Your task to perform on an android device: Clear the shopping cart on costco. Search for amazon basics triple a on costco, select the first entry, add it to the cart, then select checkout. Image 0: 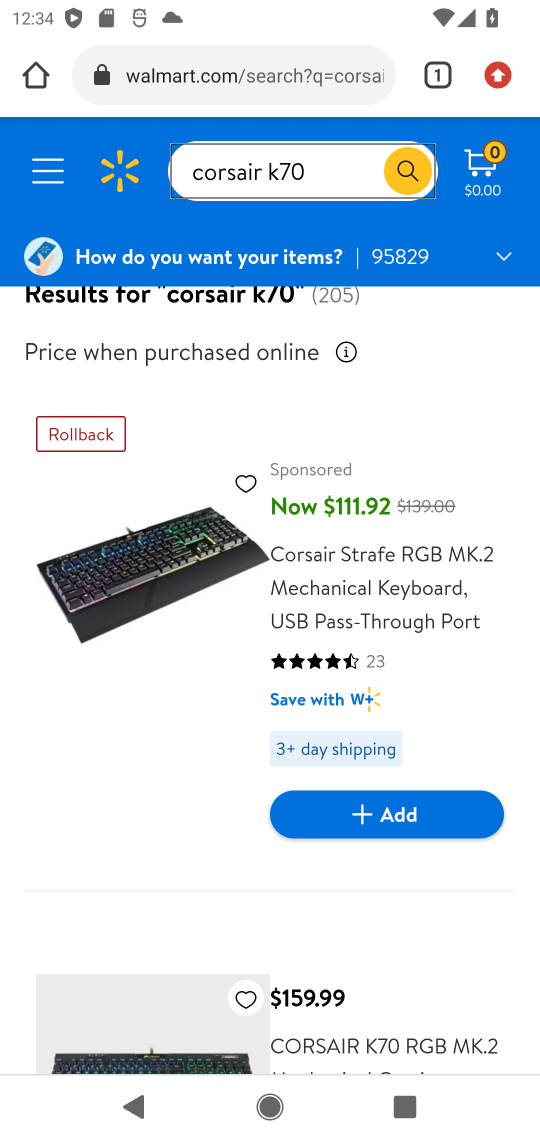
Step 0: click (232, 82)
Your task to perform on an android device: Clear the shopping cart on costco. Search for amazon basics triple a on costco, select the first entry, add it to the cart, then select checkout. Image 1: 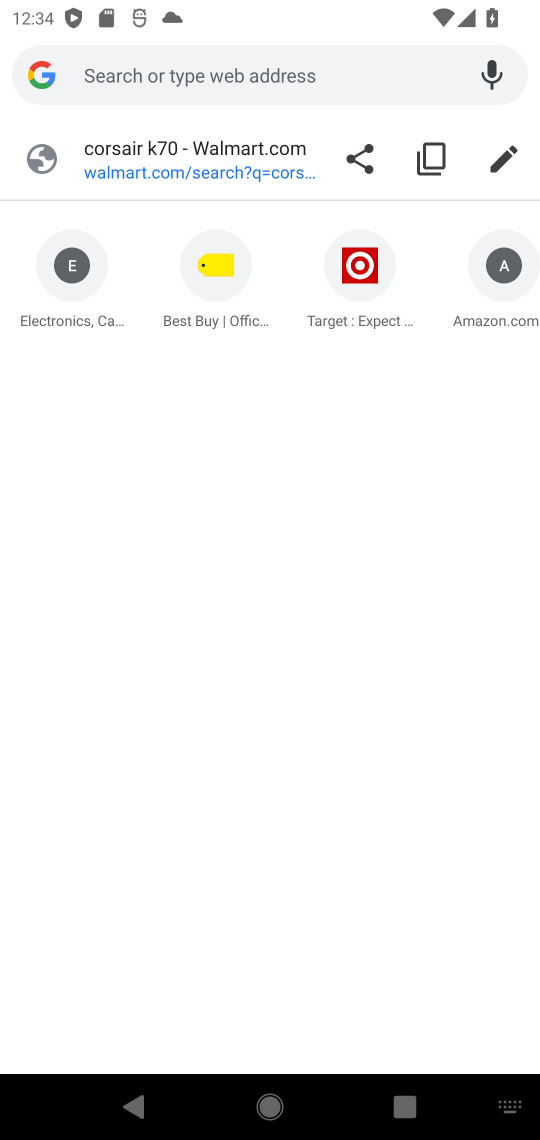
Step 1: type "costco.com"
Your task to perform on an android device: Clear the shopping cart on costco. Search for amazon basics triple a on costco, select the first entry, add it to the cart, then select checkout. Image 2: 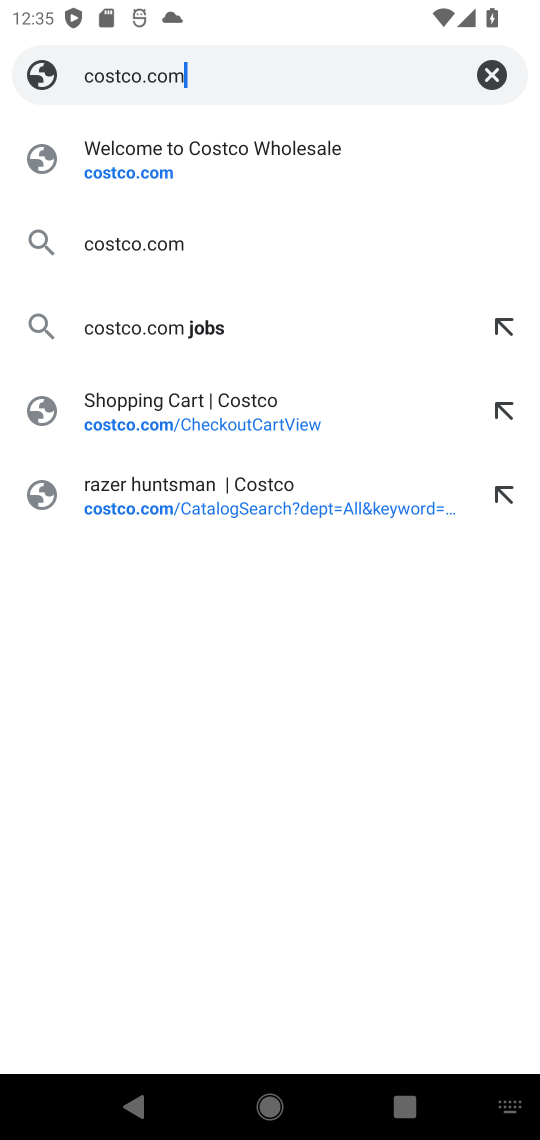
Step 2: click (123, 180)
Your task to perform on an android device: Clear the shopping cart on costco. Search for amazon basics triple a on costco, select the first entry, add it to the cart, then select checkout. Image 3: 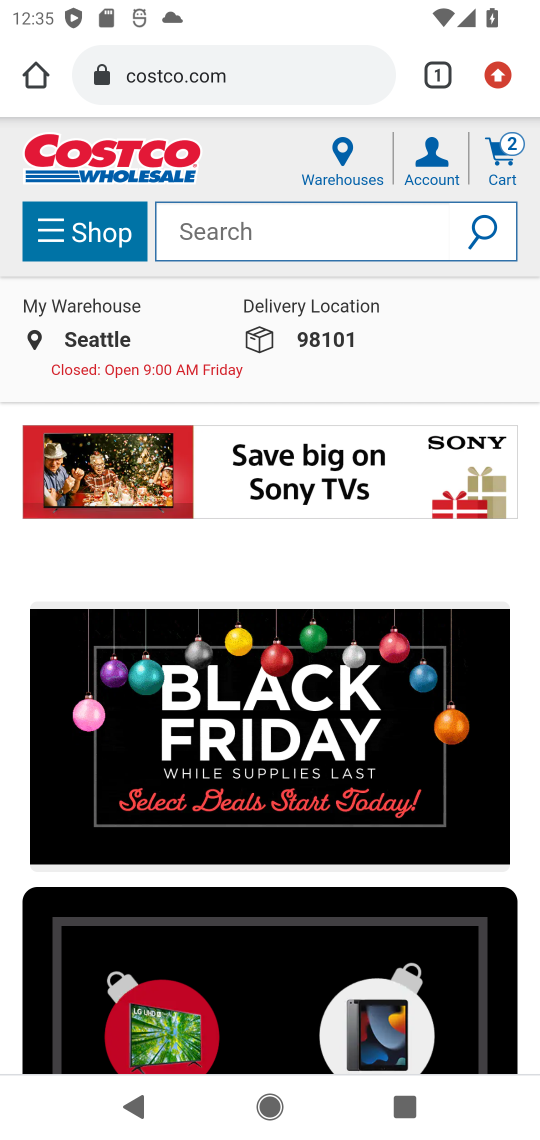
Step 3: click (502, 166)
Your task to perform on an android device: Clear the shopping cart on costco. Search for amazon basics triple a on costco, select the first entry, add it to the cart, then select checkout. Image 4: 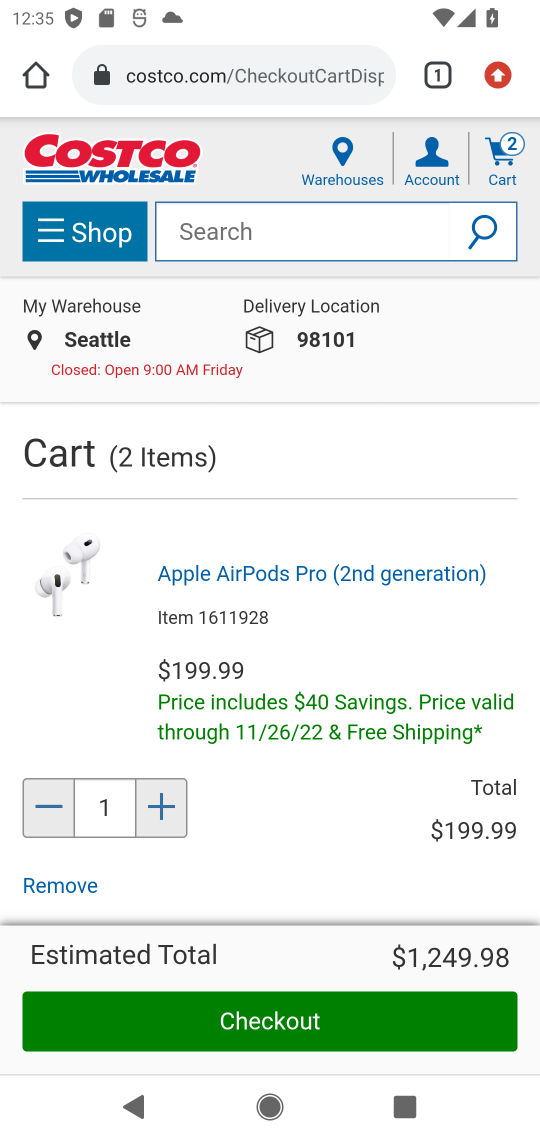
Step 4: drag from (275, 760) to (272, 327)
Your task to perform on an android device: Clear the shopping cart on costco. Search for amazon basics triple a on costco, select the first entry, add it to the cart, then select checkout. Image 5: 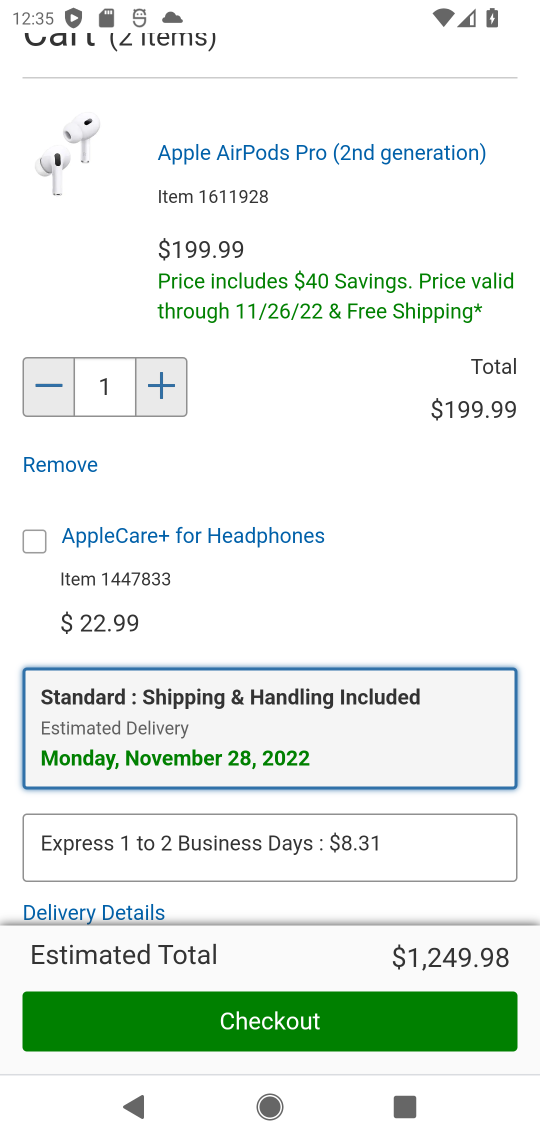
Step 5: drag from (314, 744) to (336, 470)
Your task to perform on an android device: Clear the shopping cart on costco. Search for amazon basics triple a on costco, select the first entry, add it to the cart, then select checkout. Image 6: 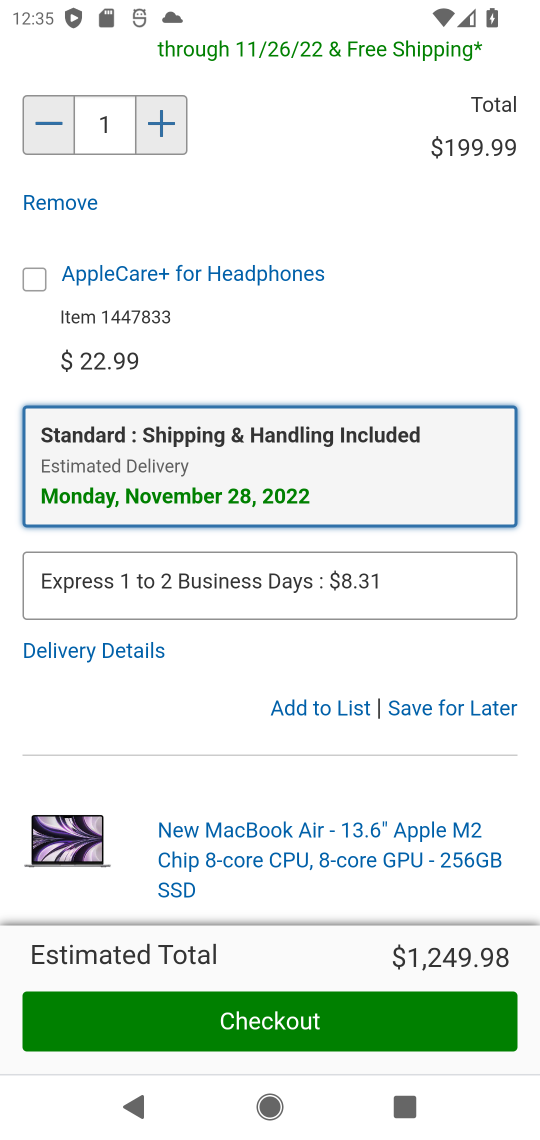
Step 6: click (413, 715)
Your task to perform on an android device: Clear the shopping cart on costco. Search for amazon basics triple a on costco, select the first entry, add it to the cart, then select checkout. Image 7: 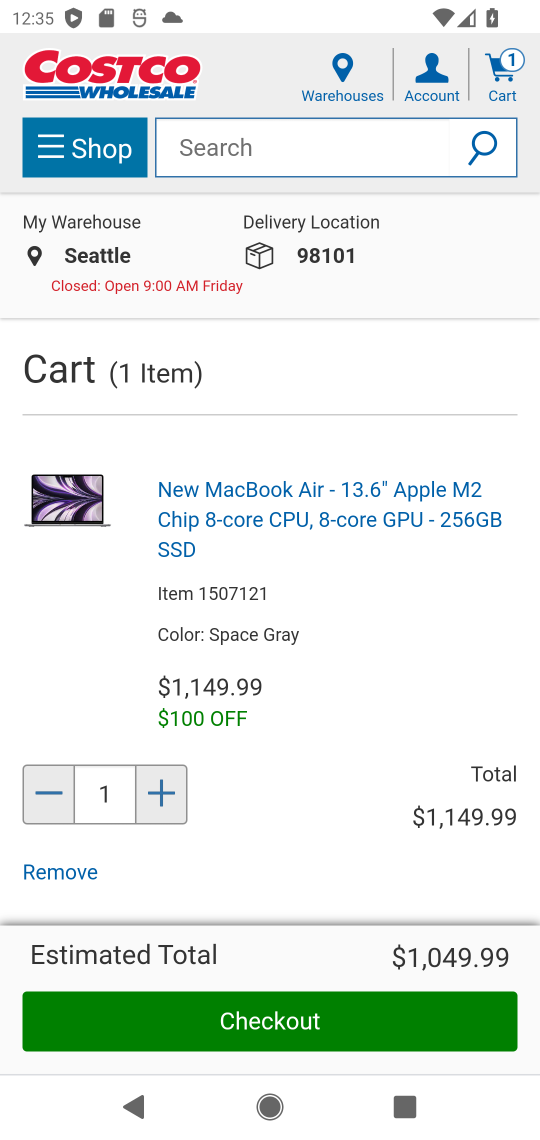
Step 7: drag from (371, 826) to (379, 511)
Your task to perform on an android device: Clear the shopping cart on costco. Search for amazon basics triple a on costco, select the first entry, add it to the cart, then select checkout. Image 8: 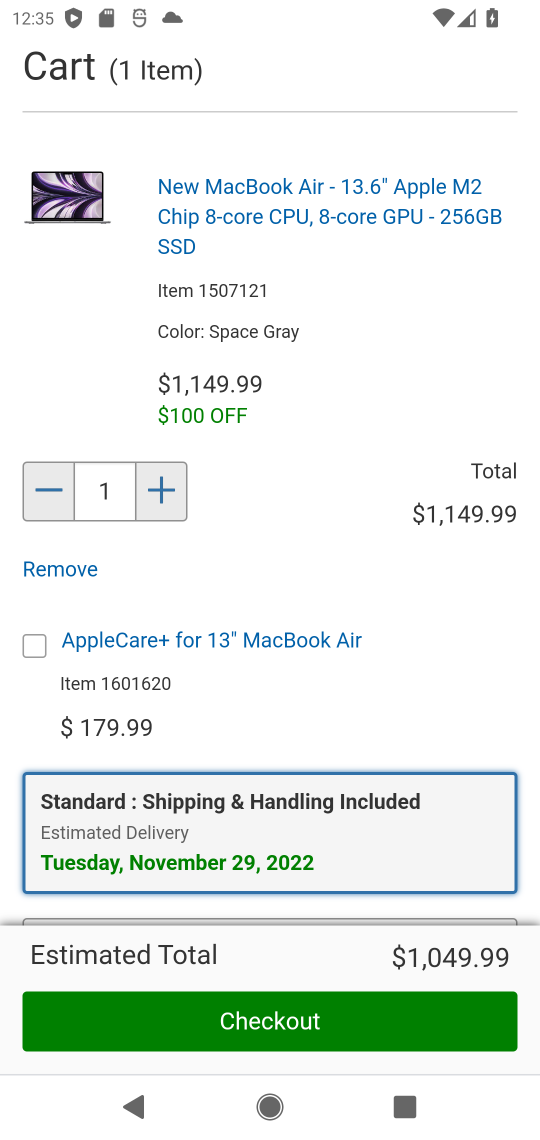
Step 8: drag from (440, 784) to (440, 482)
Your task to perform on an android device: Clear the shopping cart on costco. Search for amazon basics triple a on costco, select the first entry, add it to the cart, then select checkout. Image 9: 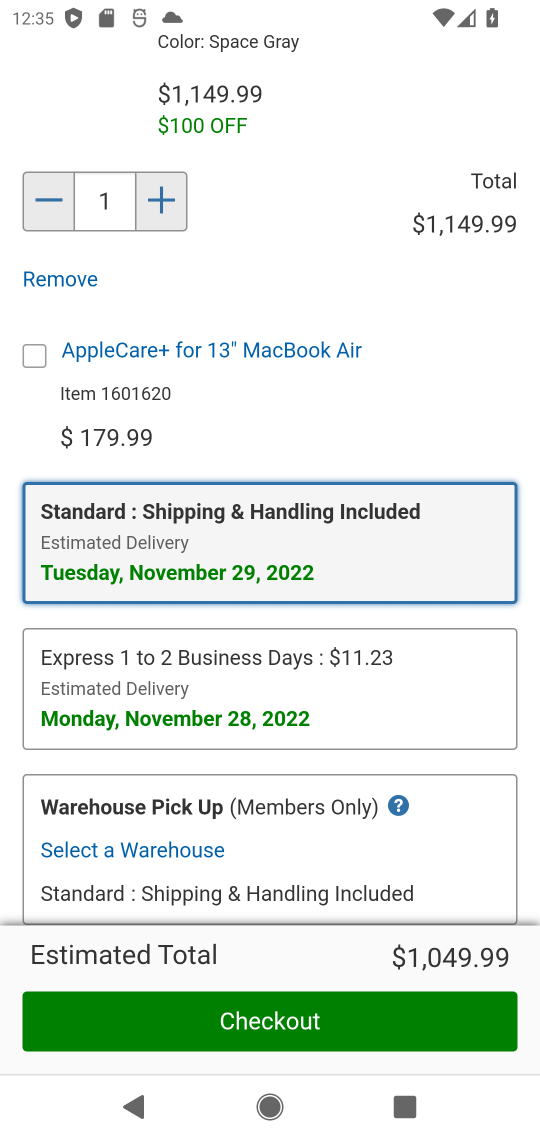
Step 9: drag from (430, 789) to (435, 471)
Your task to perform on an android device: Clear the shopping cart on costco. Search for amazon basics triple a on costco, select the first entry, add it to the cart, then select checkout. Image 10: 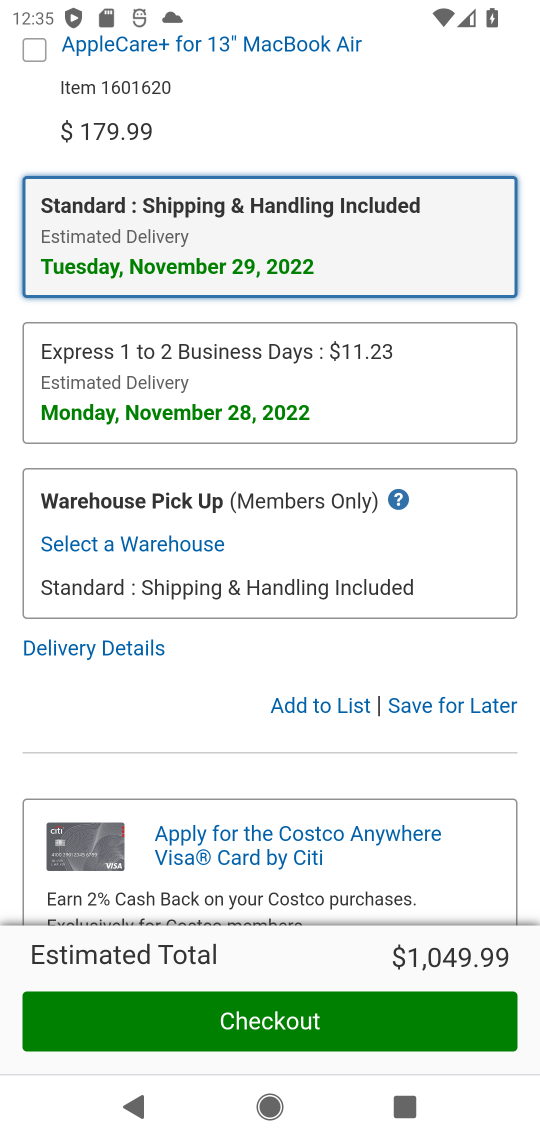
Step 10: click (450, 711)
Your task to perform on an android device: Clear the shopping cart on costco. Search for amazon basics triple a on costco, select the first entry, add it to the cart, then select checkout. Image 11: 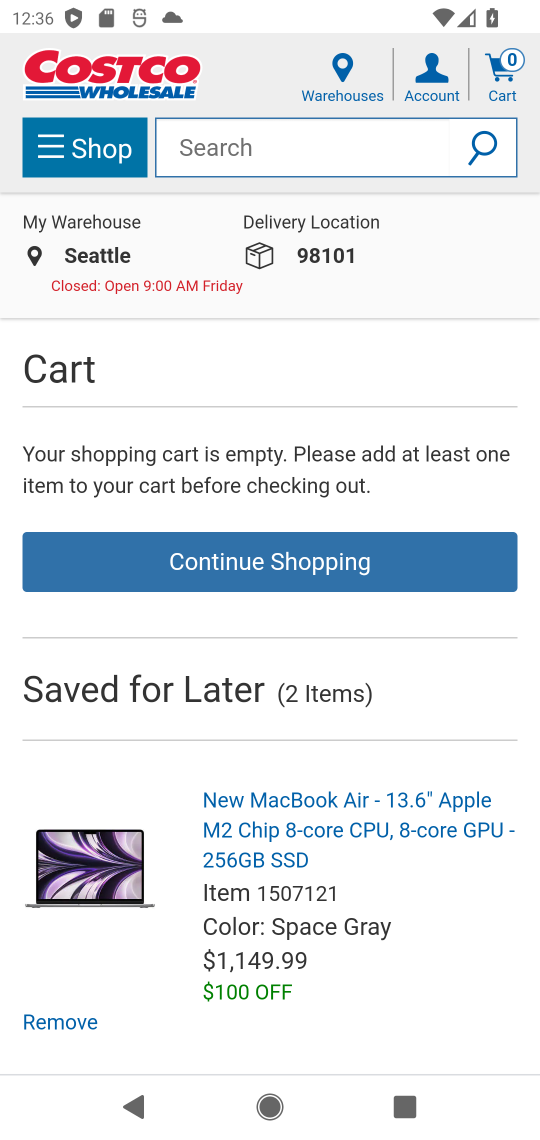
Step 11: click (236, 154)
Your task to perform on an android device: Clear the shopping cart on costco. Search for amazon basics triple a on costco, select the first entry, add it to the cart, then select checkout. Image 12: 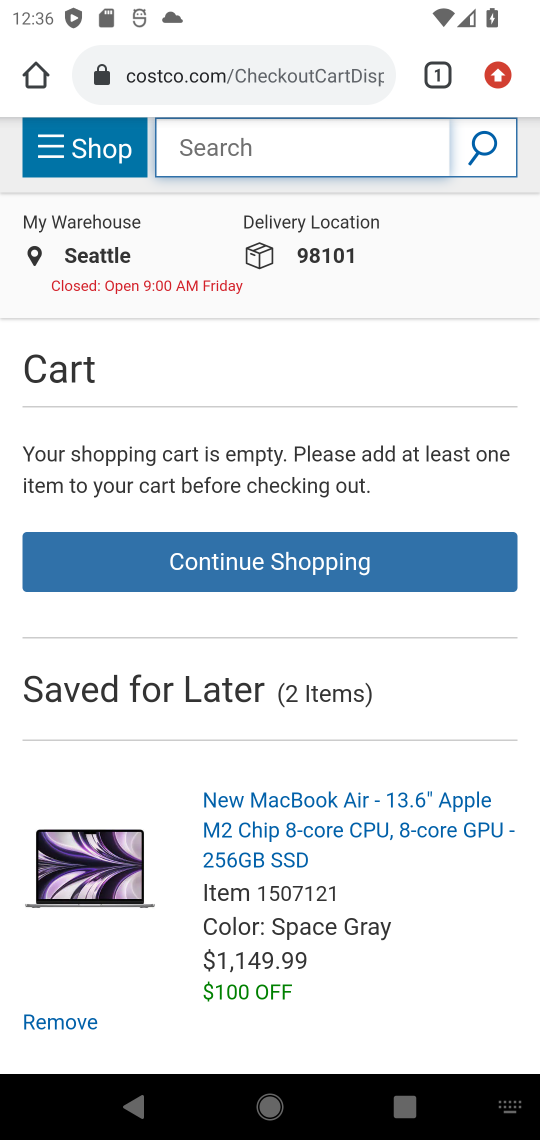
Step 12: type "amazon basics triple a "
Your task to perform on an android device: Clear the shopping cart on costco. Search for amazon basics triple a on costco, select the first entry, add it to the cart, then select checkout. Image 13: 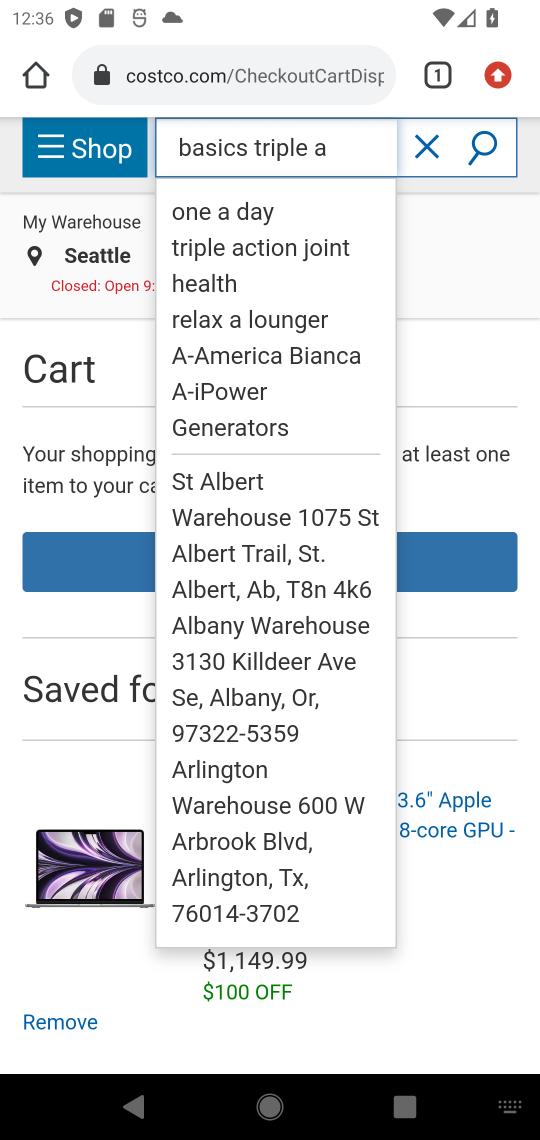
Step 13: click (487, 140)
Your task to perform on an android device: Clear the shopping cart on costco. Search for amazon basics triple a on costco, select the first entry, add it to the cart, then select checkout. Image 14: 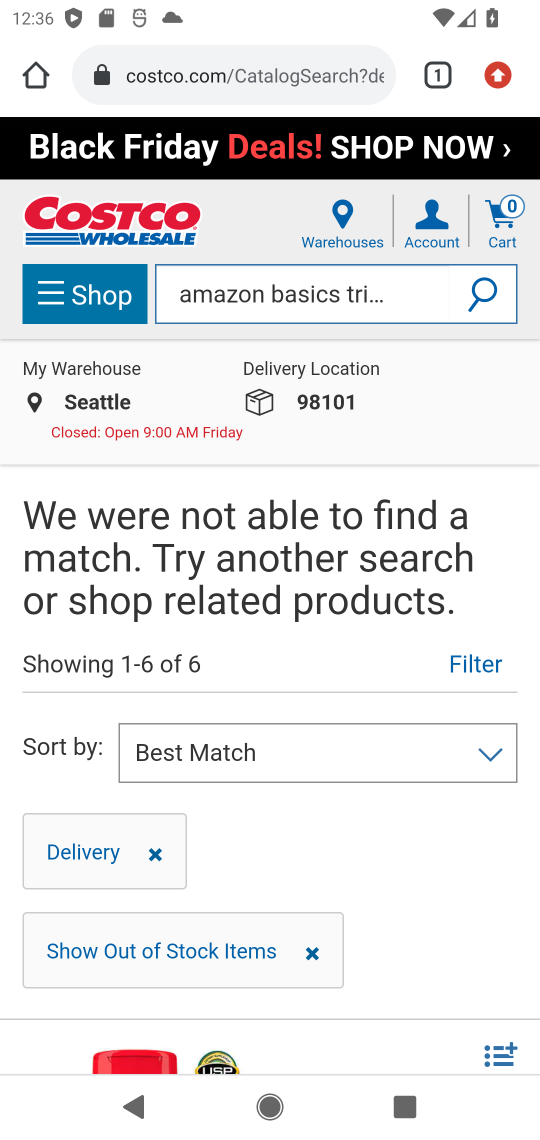
Step 14: task complete